Your task to perform on an android device: Open the map Image 0: 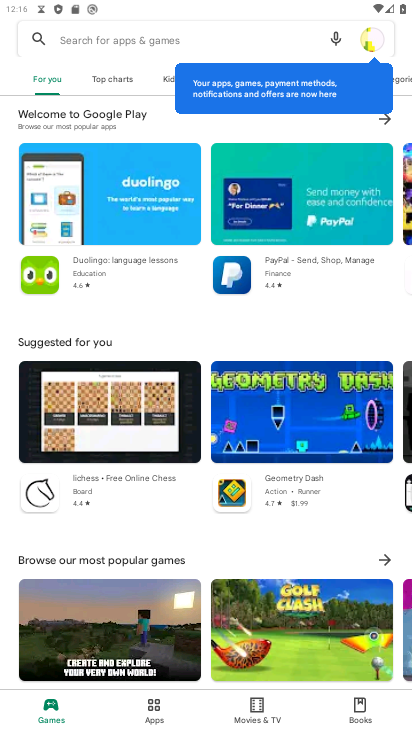
Step 0: press home button
Your task to perform on an android device: Open the map Image 1: 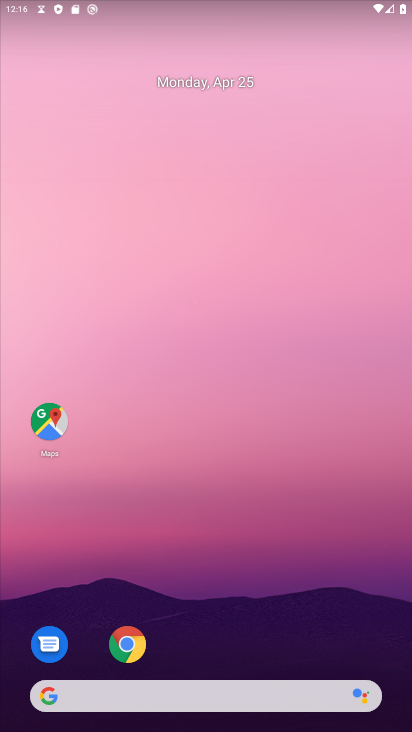
Step 1: click (48, 422)
Your task to perform on an android device: Open the map Image 2: 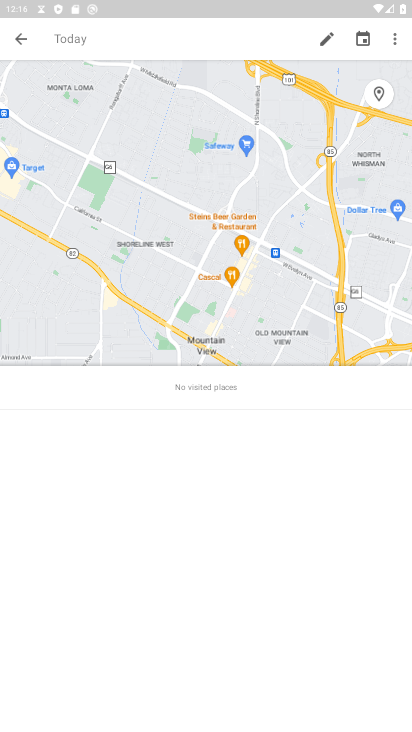
Step 2: task complete